Your task to perform on an android device: change the upload size in google photos Image 0: 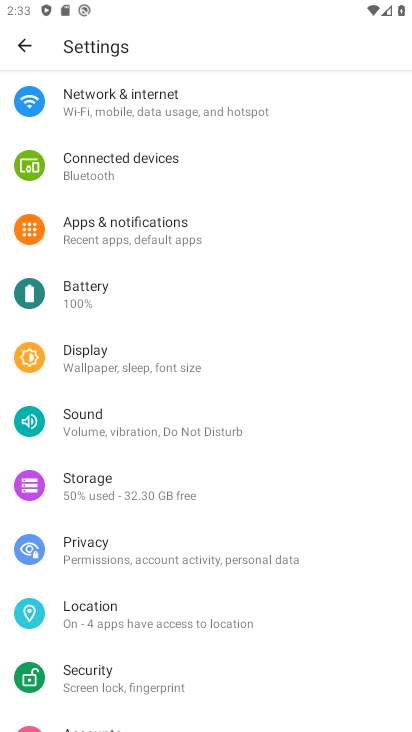
Step 0: press home button
Your task to perform on an android device: change the upload size in google photos Image 1: 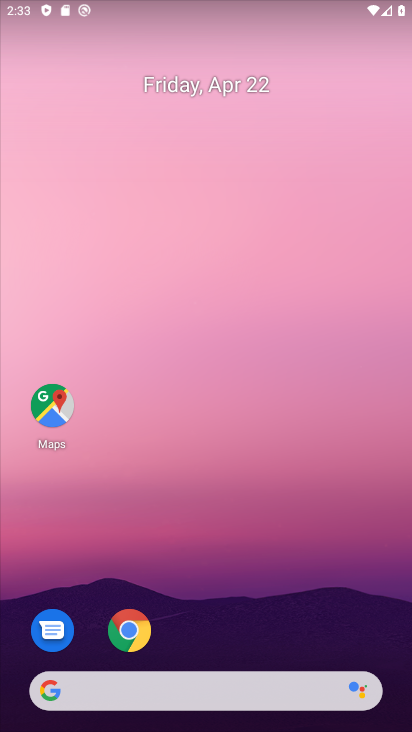
Step 1: drag from (375, 495) to (384, 202)
Your task to perform on an android device: change the upload size in google photos Image 2: 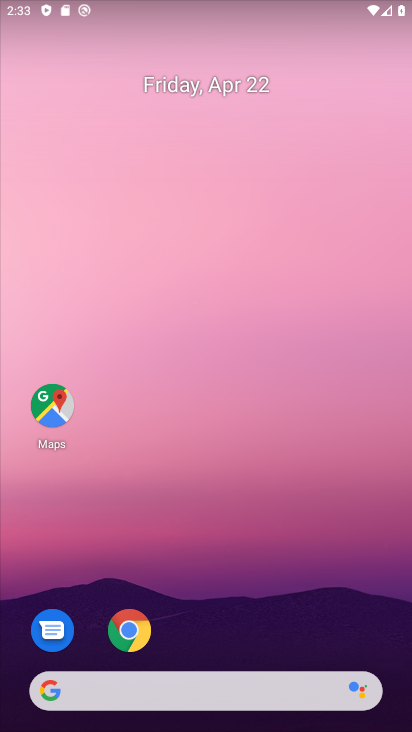
Step 2: drag from (313, 521) to (313, 175)
Your task to perform on an android device: change the upload size in google photos Image 3: 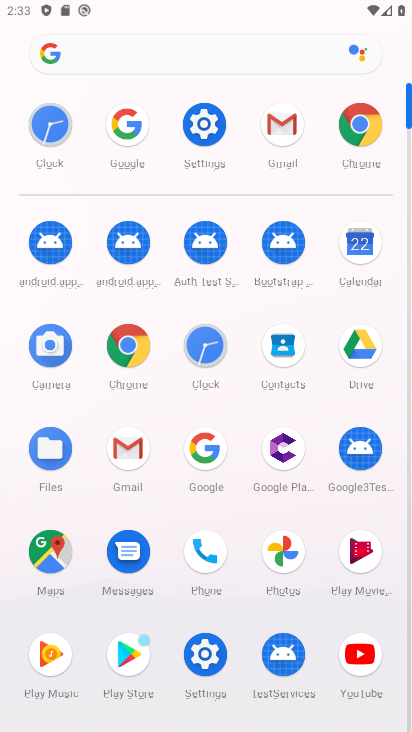
Step 3: click (290, 551)
Your task to perform on an android device: change the upload size in google photos Image 4: 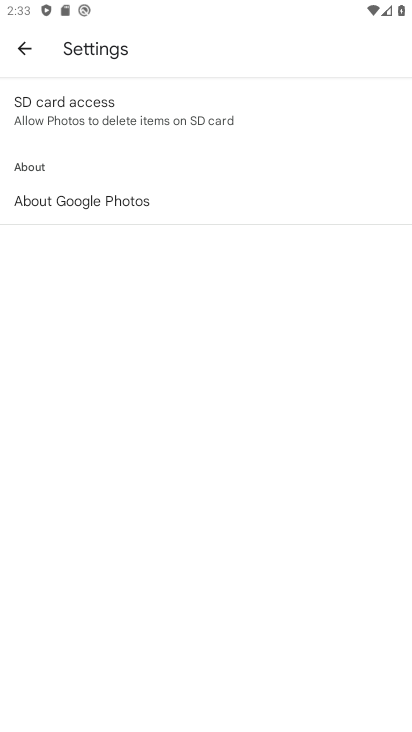
Step 4: click (29, 42)
Your task to perform on an android device: change the upload size in google photos Image 5: 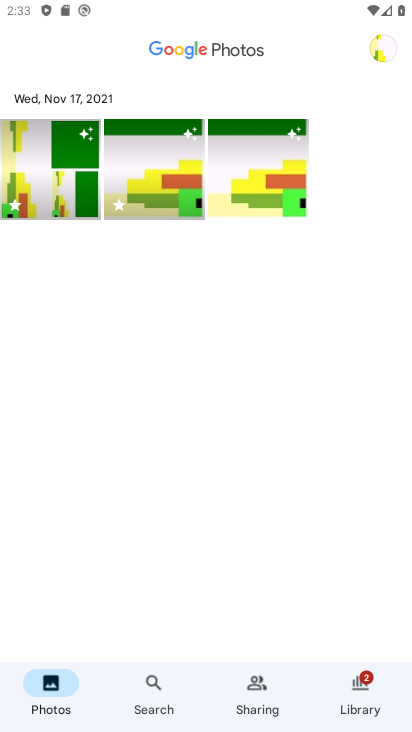
Step 5: click (376, 47)
Your task to perform on an android device: change the upload size in google photos Image 6: 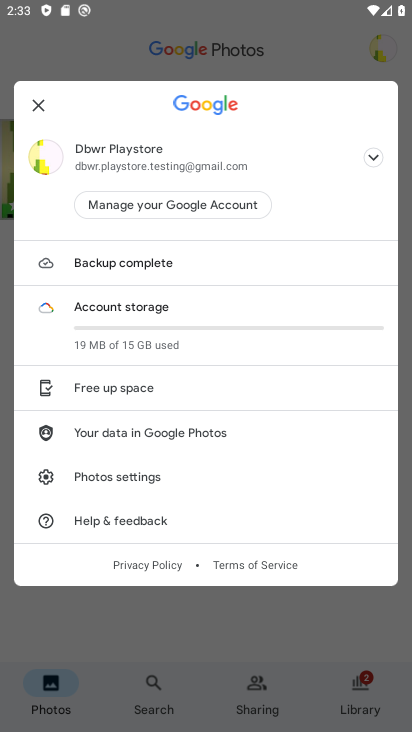
Step 6: click (132, 475)
Your task to perform on an android device: change the upload size in google photos Image 7: 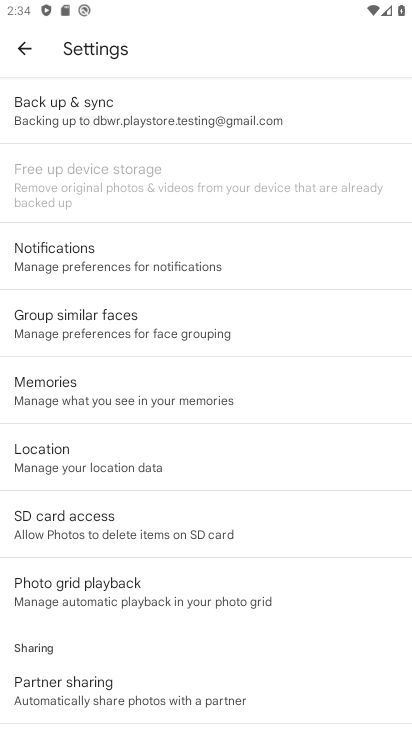
Step 7: click (157, 124)
Your task to perform on an android device: change the upload size in google photos Image 8: 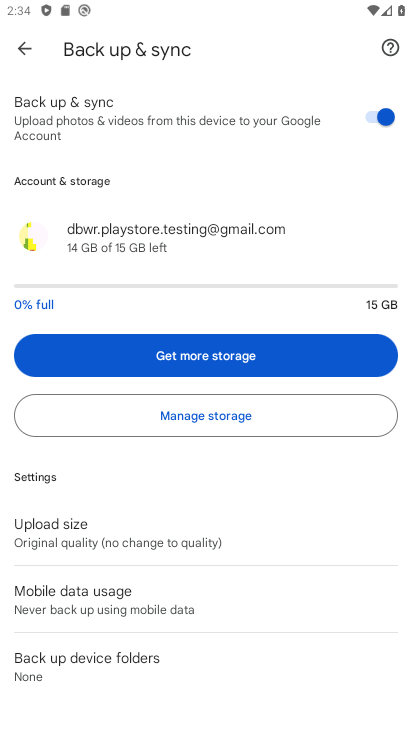
Step 8: click (118, 538)
Your task to perform on an android device: change the upload size in google photos Image 9: 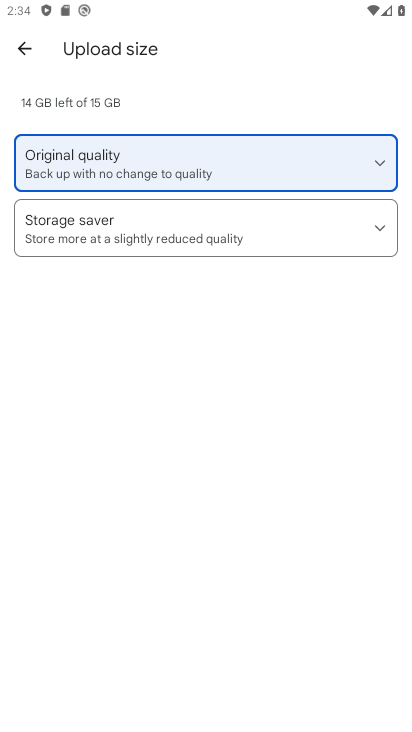
Step 9: click (142, 225)
Your task to perform on an android device: change the upload size in google photos Image 10: 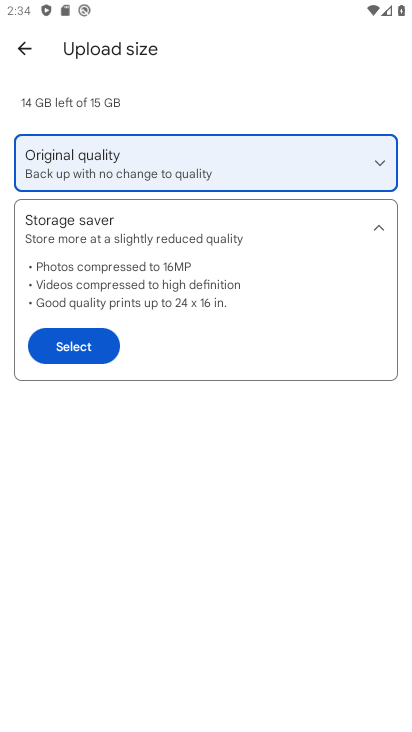
Step 10: click (70, 352)
Your task to perform on an android device: change the upload size in google photos Image 11: 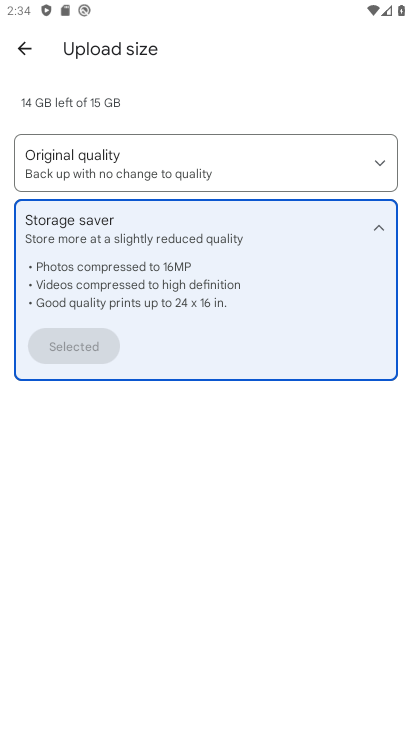
Step 11: task complete